Your task to perform on an android device: open wifi settings Image 0: 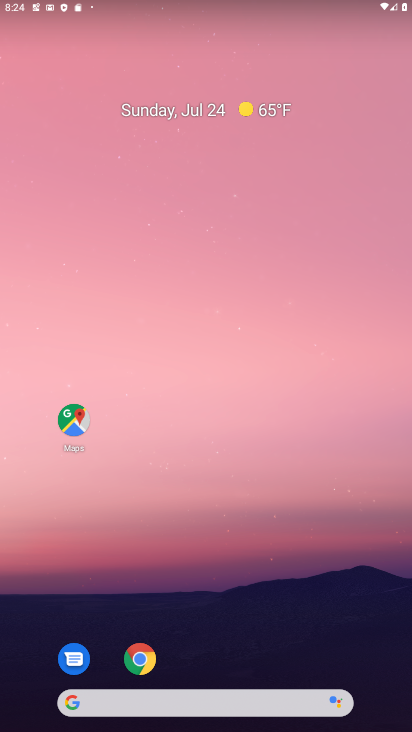
Step 0: drag from (286, 672) to (252, 2)
Your task to perform on an android device: open wifi settings Image 1: 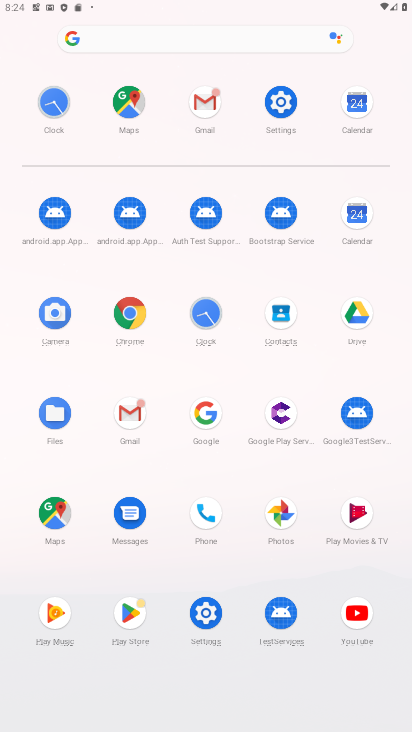
Step 1: click (272, 102)
Your task to perform on an android device: open wifi settings Image 2: 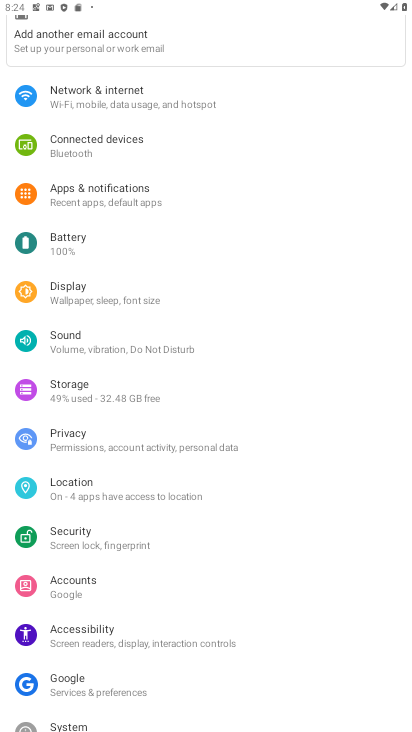
Step 2: click (42, 102)
Your task to perform on an android device: open wifi settings Image 3: 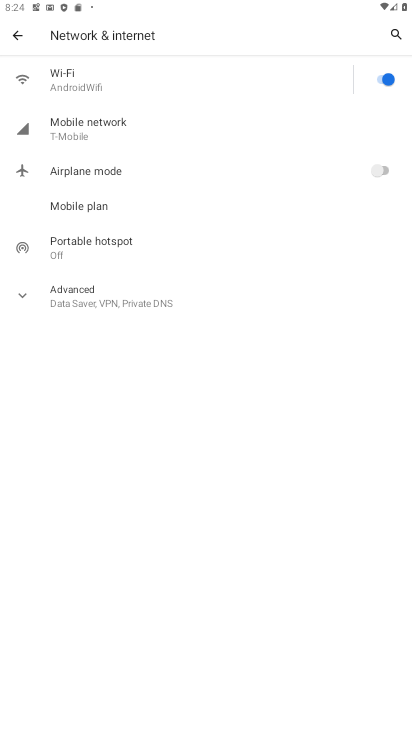
Step 3: click (24, 81)
Your task to perform on an android device: open wifi settings Image 4: 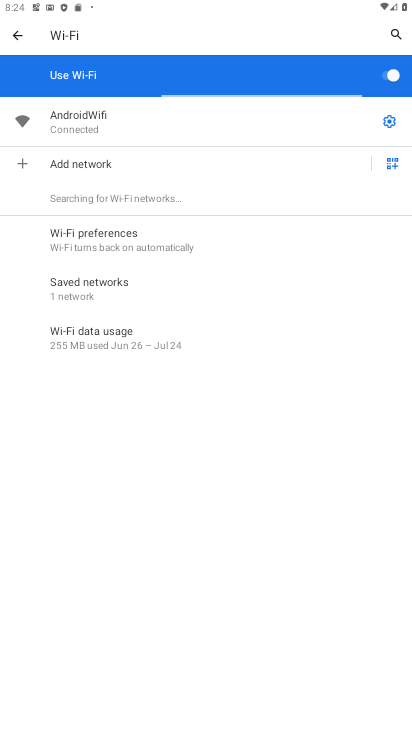
Step 4: click (393, 122)
Your task to perform on an android device: open wifi settings Image 5: 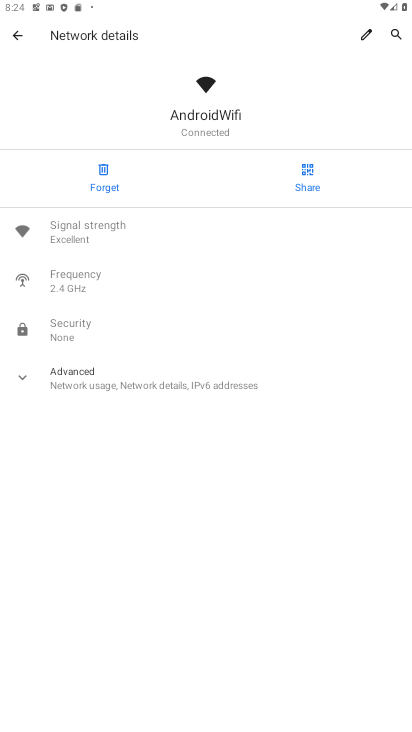
Step 5: task complete